Your task to perform on an android device: Check the weather Image 0: 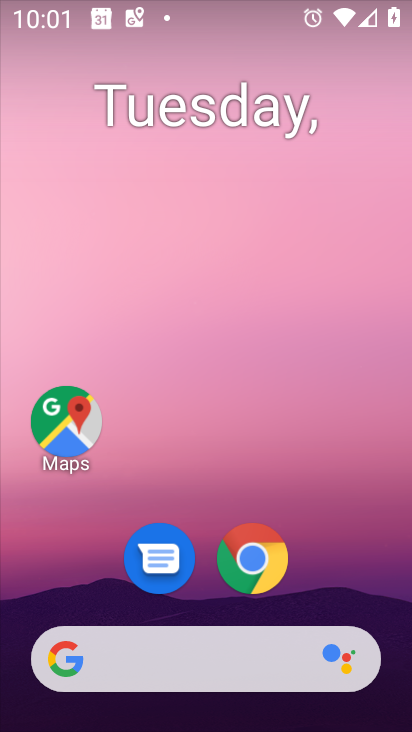
Step 0: drag from (354, 628) to (153, 180)
Your task to perform on an android device: Check the weather Image 1: 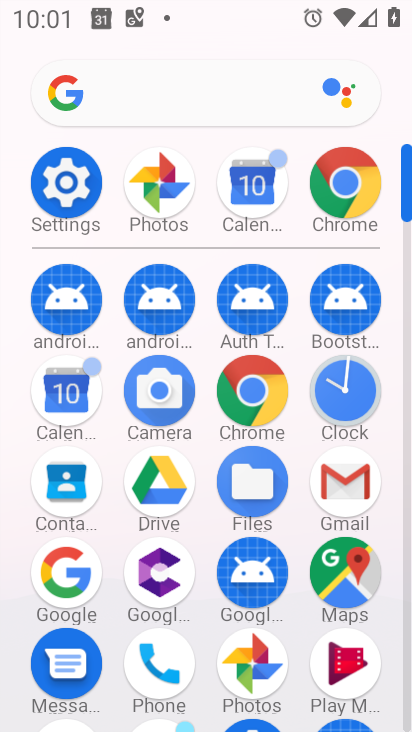
Step 1: press back button
Your task to perform on an android device: Check the weather Image 2: 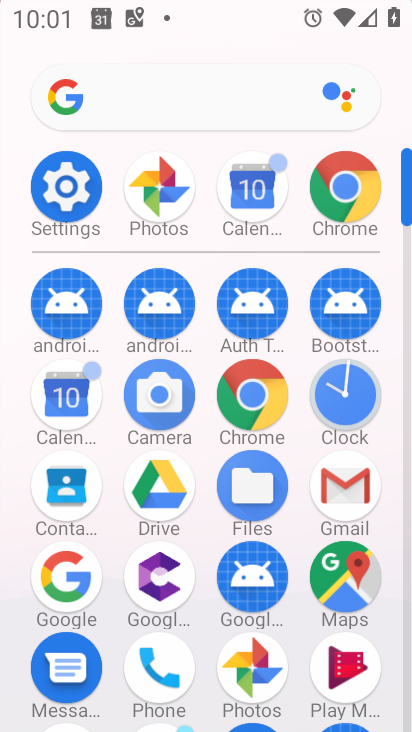
Step 2: press back button
Your task to perform on an android device: Check the weather Image 3: 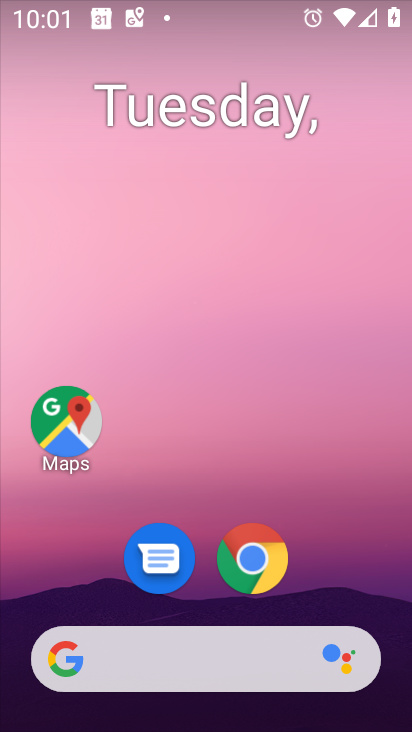
Step 3: drag from (0, 184) to (407, 418)
Your task to perform on an android device: Check the weather Image 4: 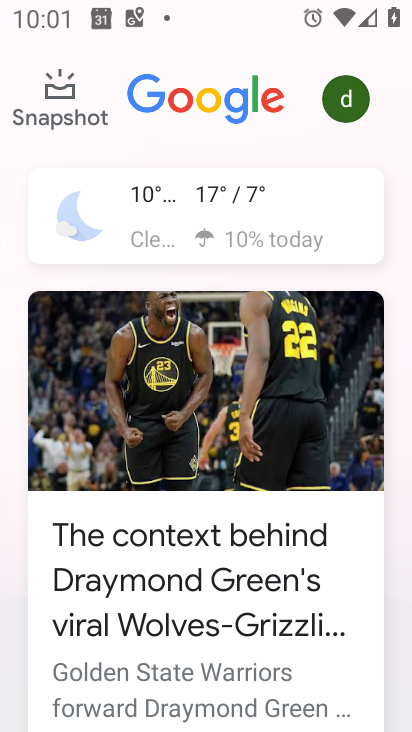
Step 4: drag from (118, 208) to (164, 200)
Your task to perform on an android device: Check the weather Image 5: 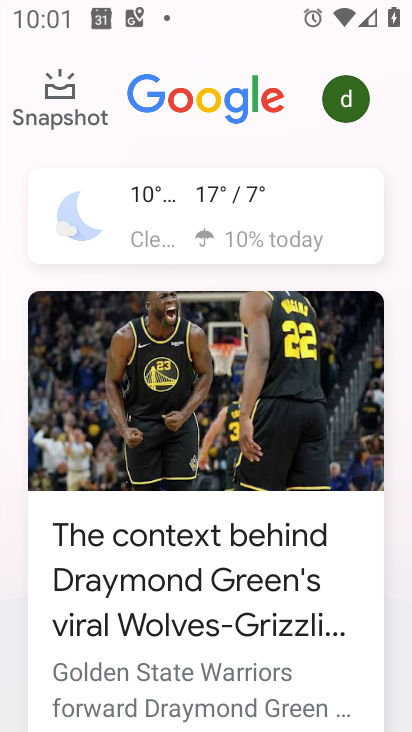
Step 5: click (166, 192)
Your task to perform on an android device: Check the weather Image 6: 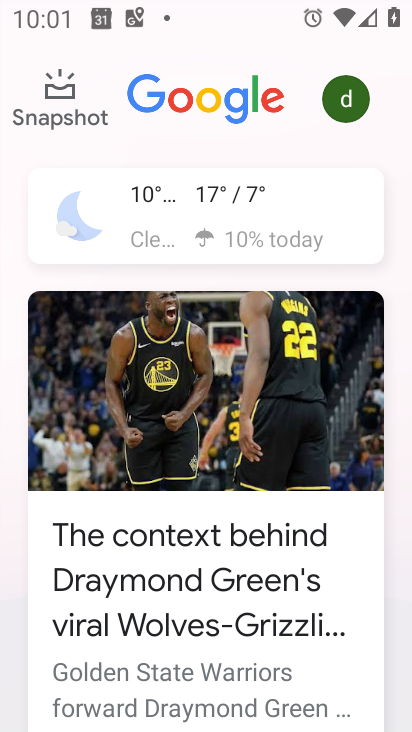
Step 6: click (167, 191)
Your task to perform on an android device: Check the weather Image 7: 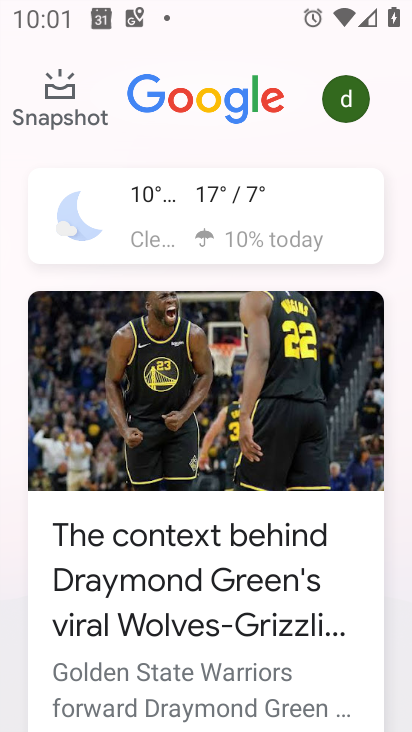
Step 7: click (232, 223)
Your task to perform on an android device: Check the weather Image 8: 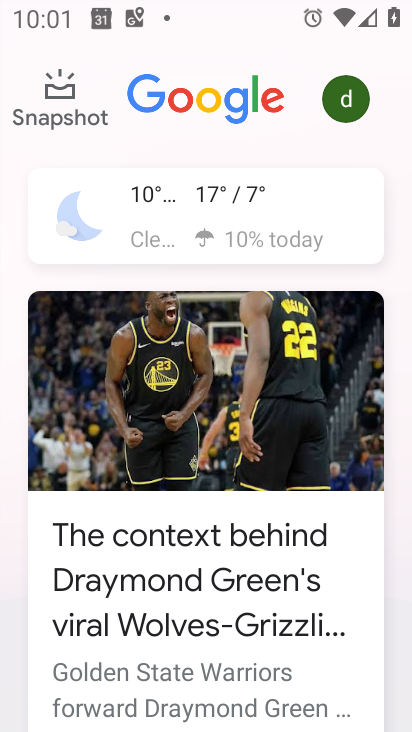
Step 8: click (232, 223)
Your task to perform on an android device: Check the weather Image 9: 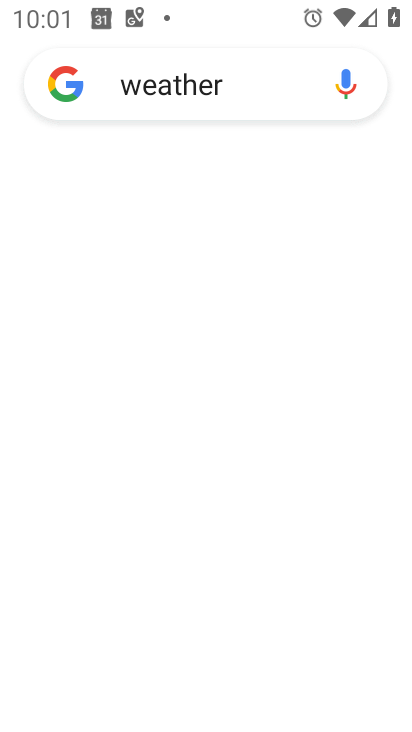
Step 9: click (230, 220)
Your task to perform on an android device: Check the weather Image 10: 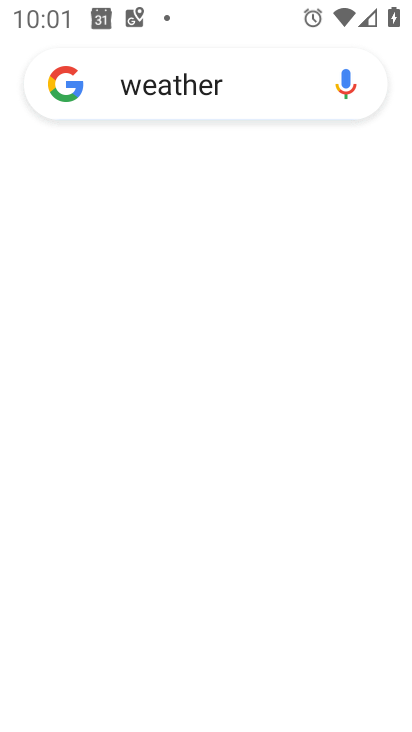
Step 10: click (230, 217)
Your task to perform on an android device: Check the weather Image 11: 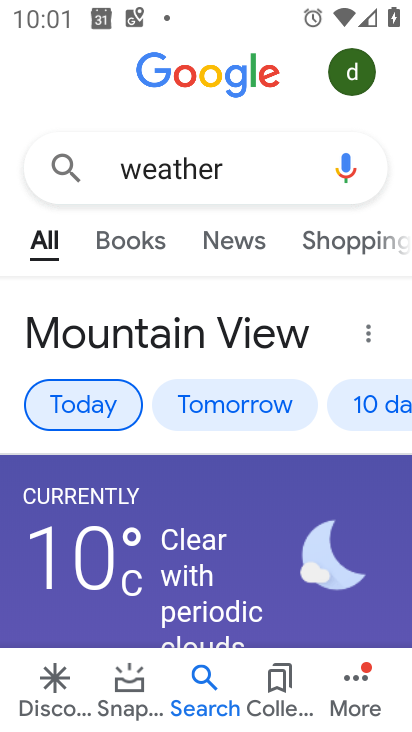
Step 11: task complete